Your task to perform on an android device: check android version Image 0: 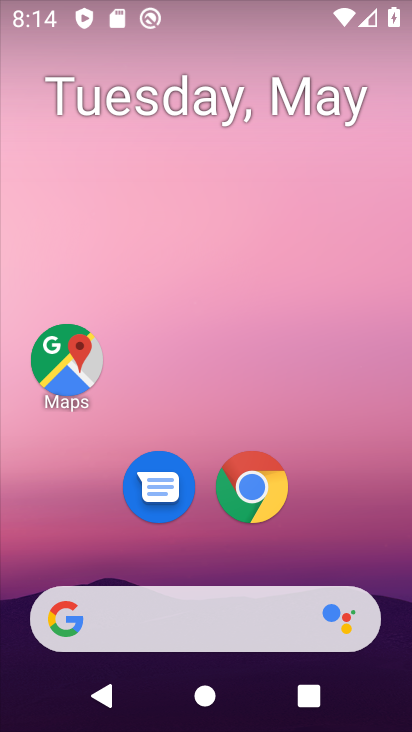
Step 0: press home button
Your task to perform on an android device: check android version Image 1: 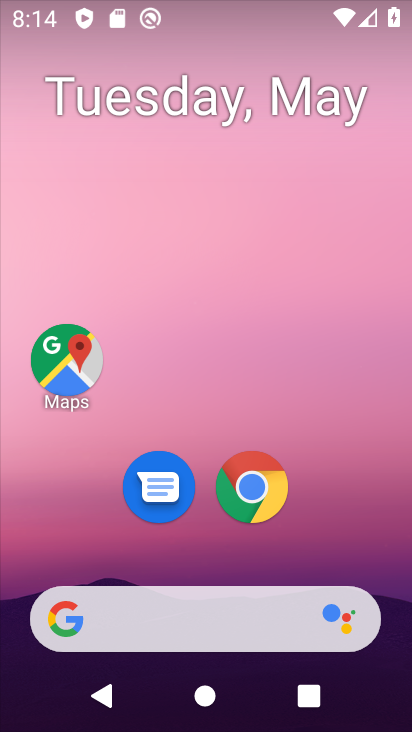
Step 1: drag from (207, 564) to (272, 65)
Your task to perform on an android device: check android version Image 2: 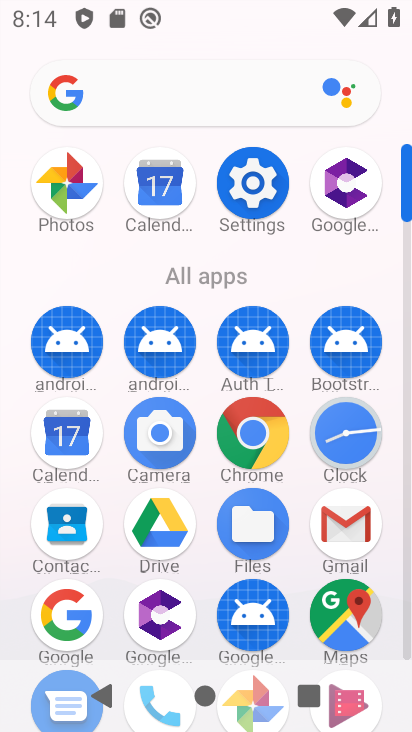
Step 2: click (251, 178)
Your task to perform on an android device: check android version Image 3: 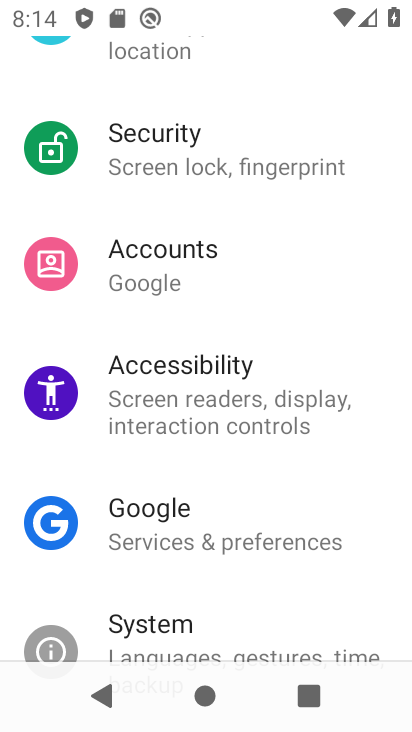
Step 3: drag from (210, 609) to (277, 49)
Your task to perform on an android device: check android version Image 4: 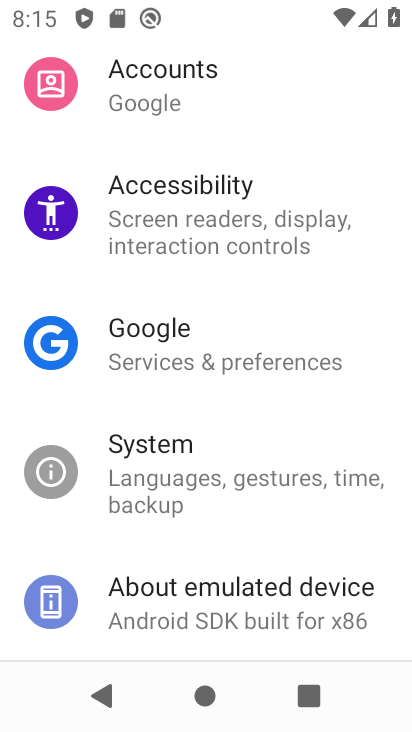
Step 4: click (201, 595)
Your task to perform on an android device: check android version Image 5: 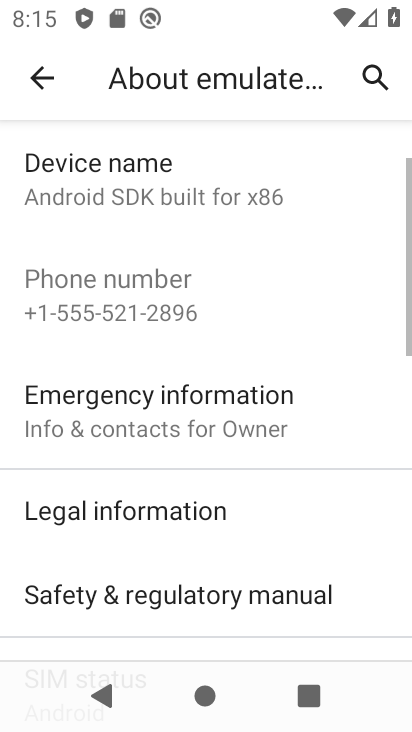
Step 5: drag from (208, 578) to (255, 54)
Your task to perform on an android device: check android version Image 6: 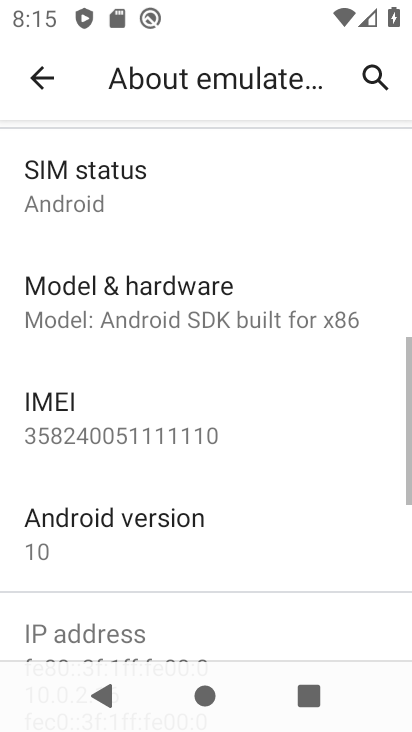
Step 6: click (116, 548)
Your task to perform on an android device: check android version Image 7: 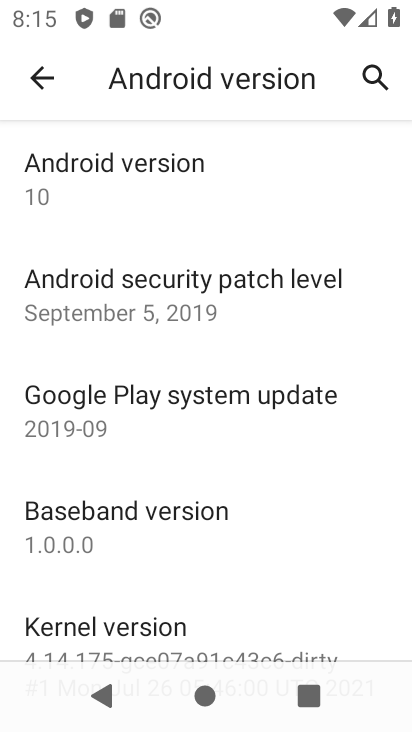
Step 7: task complete